Your task to perform on an android device: Go to Wikipedia Image 0: 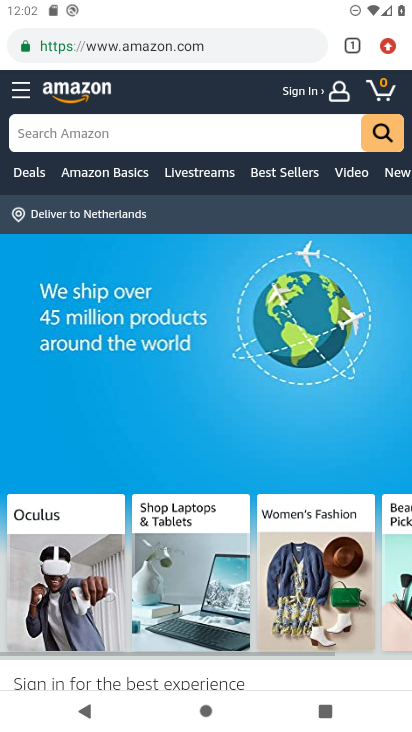
Step 0: click (191, 39)
Your task to perform on an android device: Go to Wikipedia Image 1: 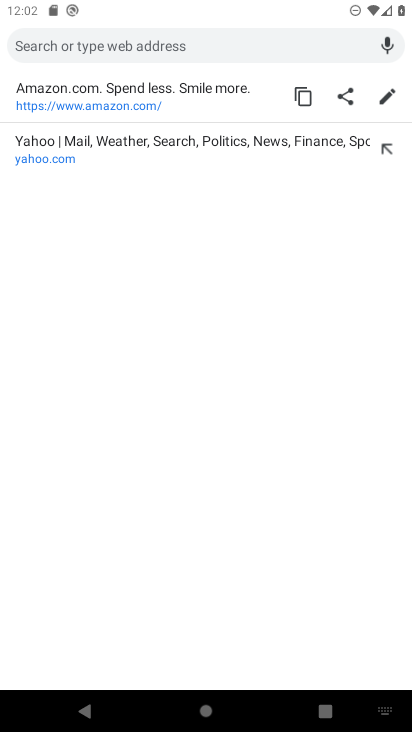
Step 1: type "Wikipedia"
Your task to perform on an android device: Go to Wikipedia Image 2: 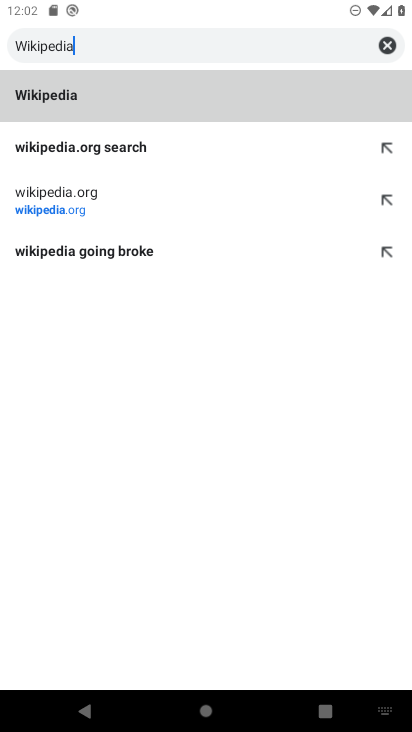
Step 2: click (76, 208)
Your task to perform on an android device: Go to Wikipedia Image 3: 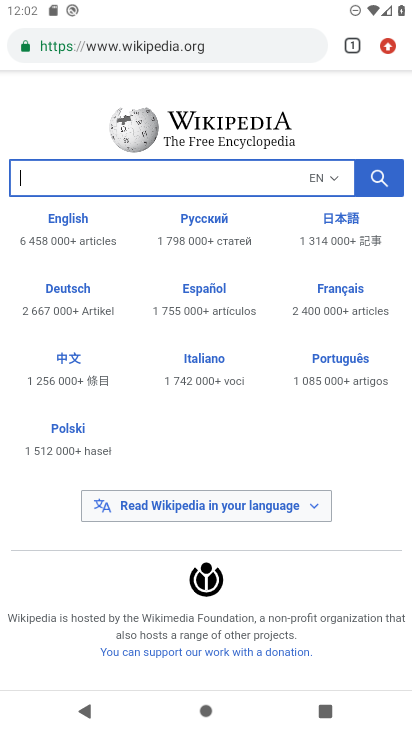
Step 3: task complete